Your task to perform on an android device: turn pop-ups off in chrome Image 0: 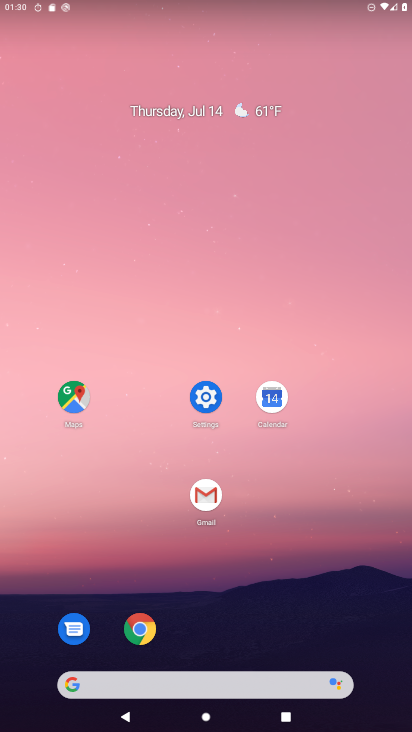
Step 0: click (135, 633)
Your task to perform on an android device: turn pop-ups off in chrome Image 1: 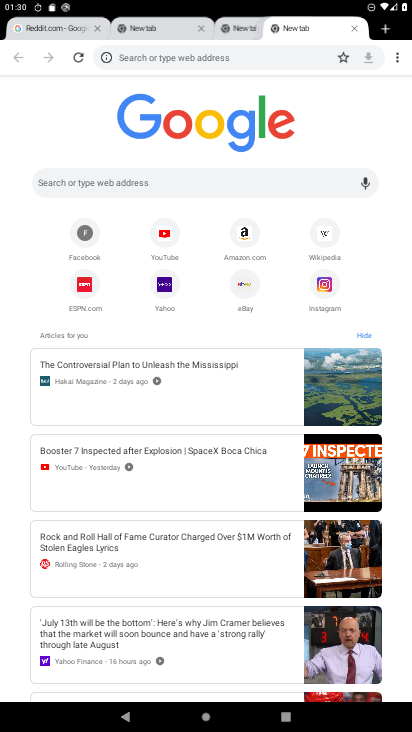
Step 1: click (398, 60)
Your task to perform on an android device: turn pop-ups off in chrome Image 2: 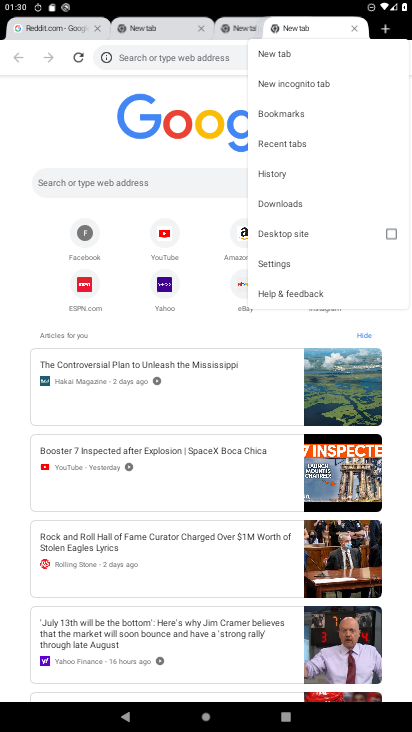
Step 2: click (270, 261)
Your task to perform on an android device: turn pop-ups off in chrome Image 3: 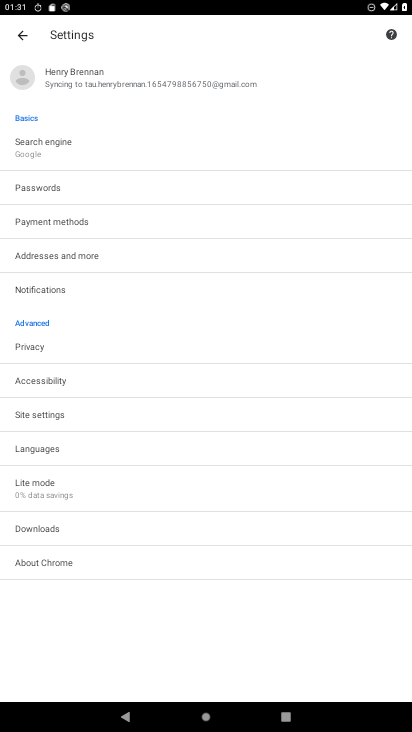
Step 3: click (63, 416)
Your task to perform on an android device: turn pop-ups off in chrome Image 4: 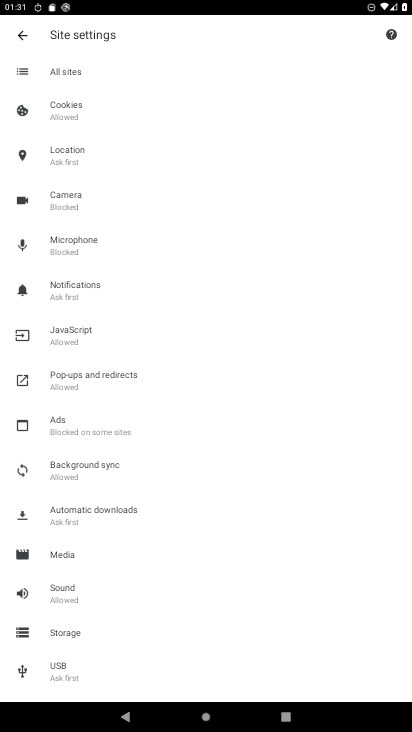
Step 4: click (66, 380)
Your task to perform on an android device: turn pop-ups off in chrome Image 5: 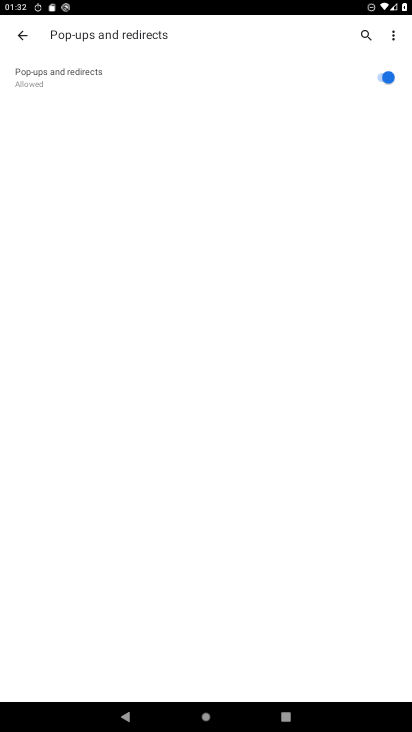
Step 5: click (383, 78)
Your task to perform on an android device: turn pop-ups off in chrome Image 6: 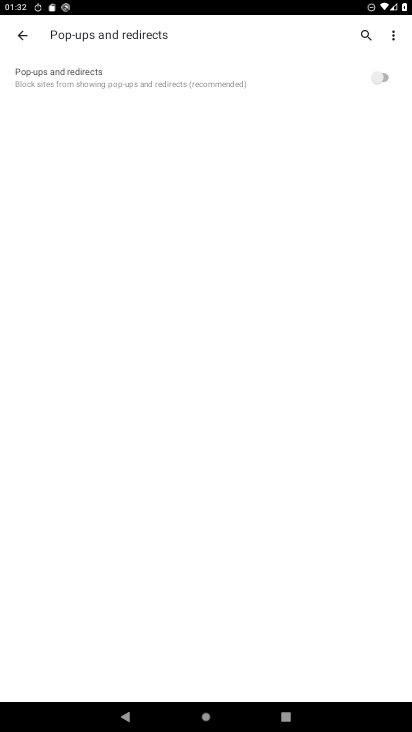
Step 6: task complete